Your task to perform on an android device: Open Chrome and go to the settings page Image 0: 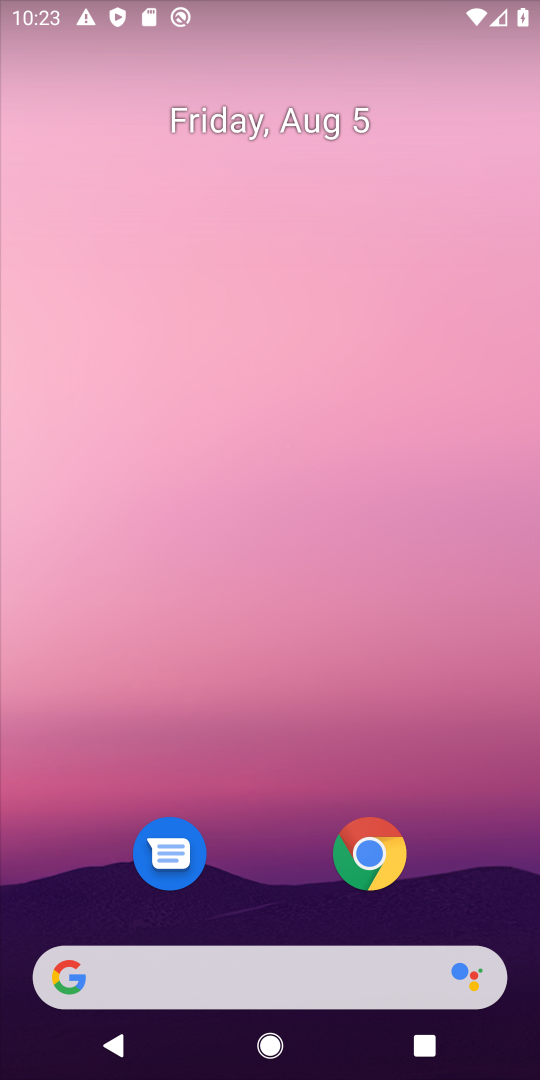
Step 0: click (370, 859)
Your task to perform on an android device: Open Chrome and go to the settings page Image 1: 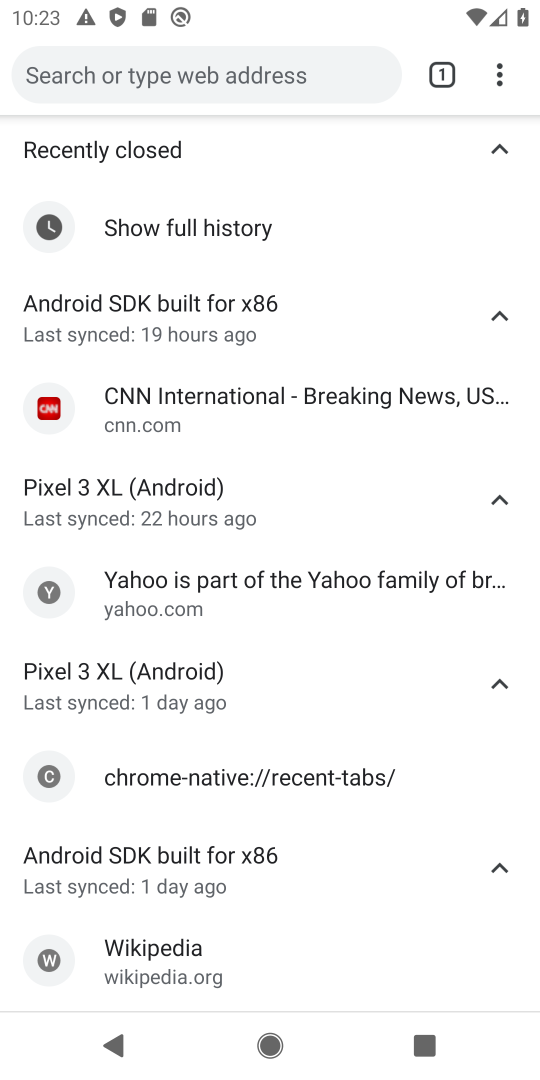
Step 1: click (505, 81)
Your task to perform on an android device: Open Chrome and go to the settings page Image 2: 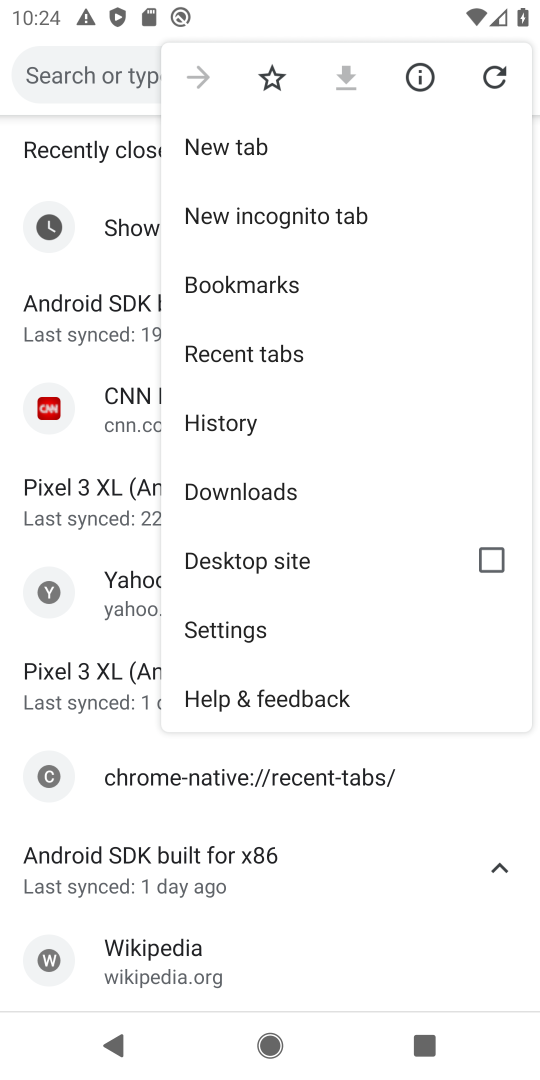
Step 2: click (232, 624)
Your task to perform on an android device: Open Chrome and go to the settings page Image 3: 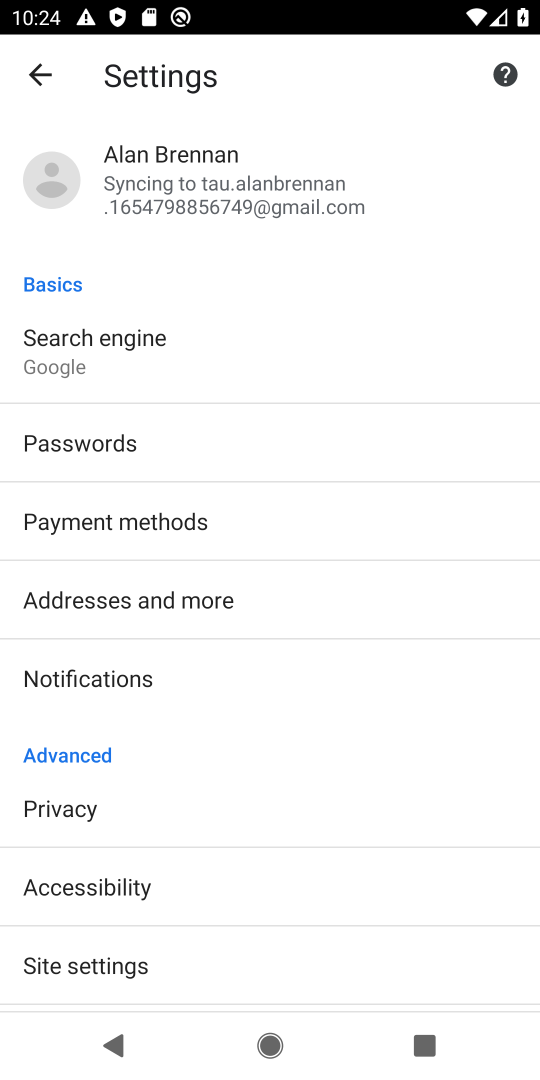
Step 3: task complete